Your task to perform on an android device: add a contact in the contacts app Image 0: 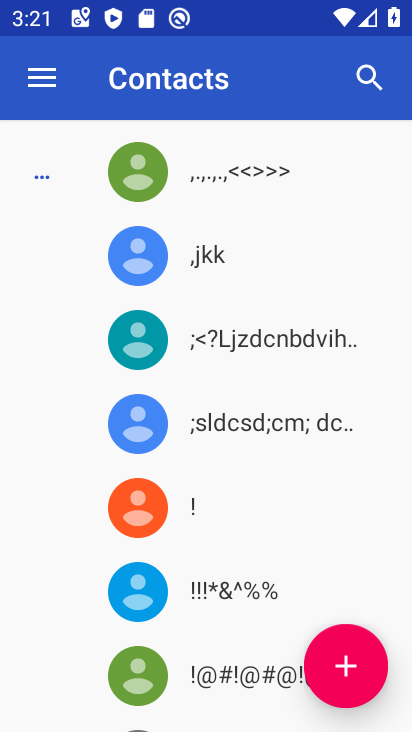
Step 0: press home button
Your task to perform on an android device: add a contact in the contacts app Image 1: 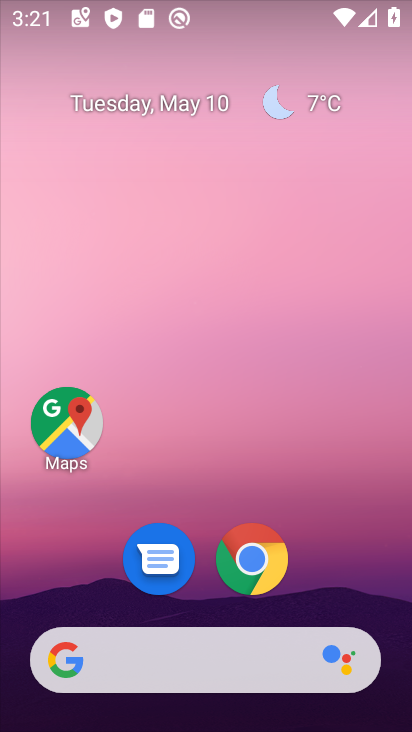
Step 1: drag from (322, 612) to (356, 250)
Your task to perform on an android device: add a contact in the contacts app Image 2: 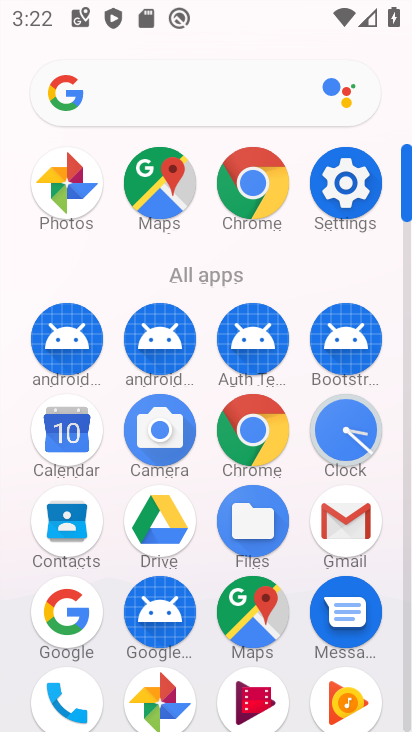
Step 2: drag from (312, 592) to (341, 267)
Your task to perform on an android device: add a contact in the contacts app Image 3: 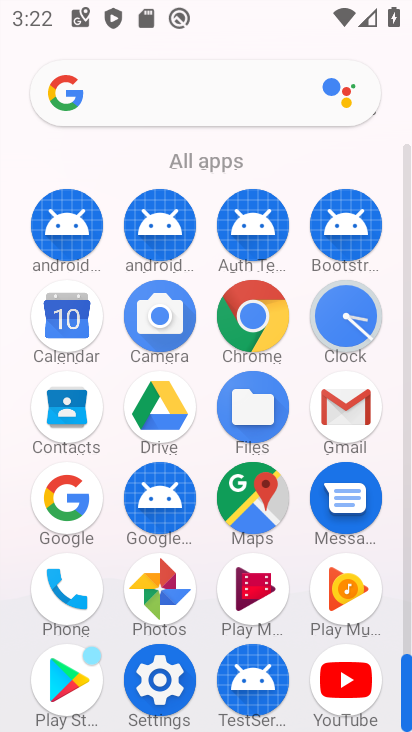
Step 3: drag from (307, 273) to (278, 596)
Your task to perform on an android device: add a contact in the contacts app Image 4: 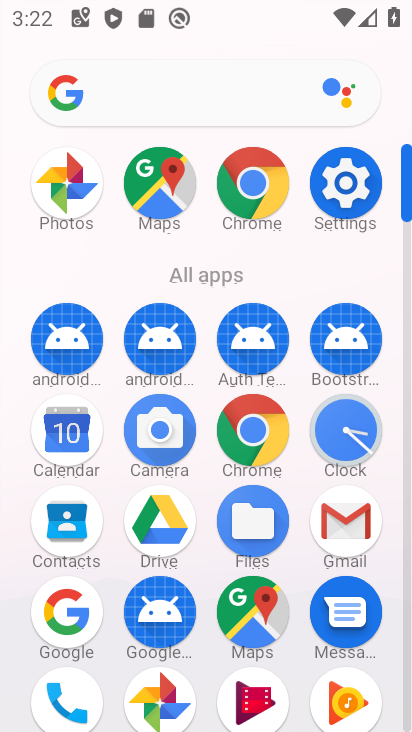
Step 4: click (86, 532)
Your task to perform on an android device: add a contact in the contacts app Image 5: 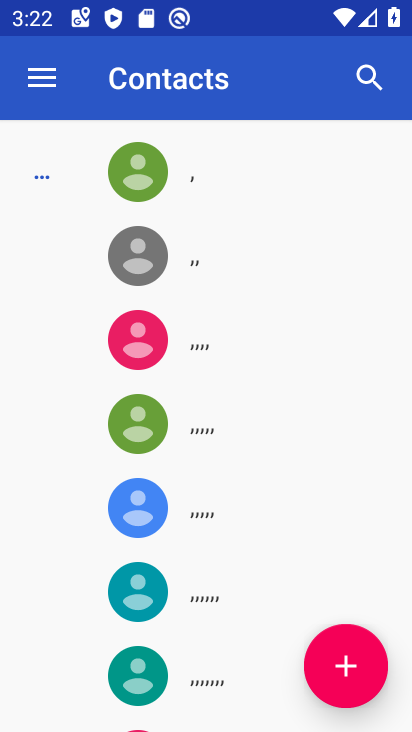
Step 5: click (349, 663)
Your task to perform on an android device: add a contact in the contacts app Image 6: 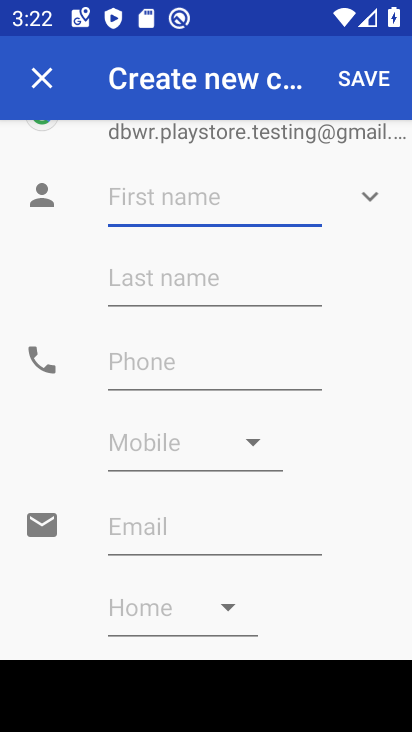
Step 6: type "contact 33"
Your task to perform on an android device: add a contact in the contacts app Image 7: 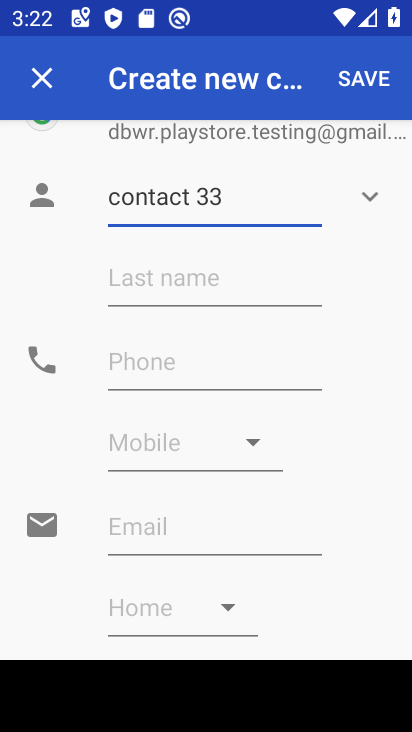
Step 7: click (230, 375)
Your task to perform on an android device: add a contact in the contacts app Image 8: 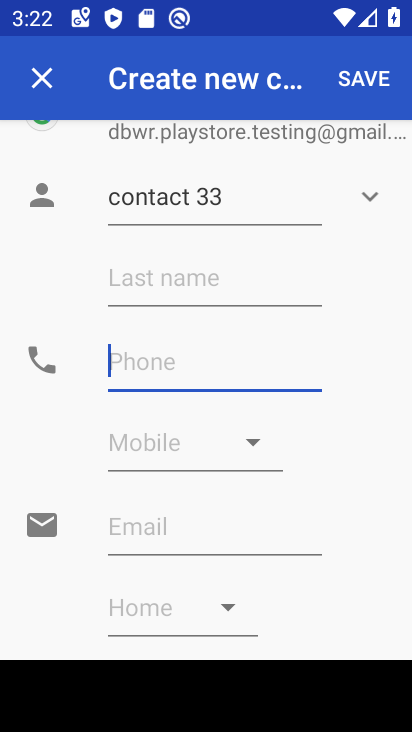
Step 8: type "6564766556"
Your task to perform on an android device: add a contact in the contacts app Image 9: 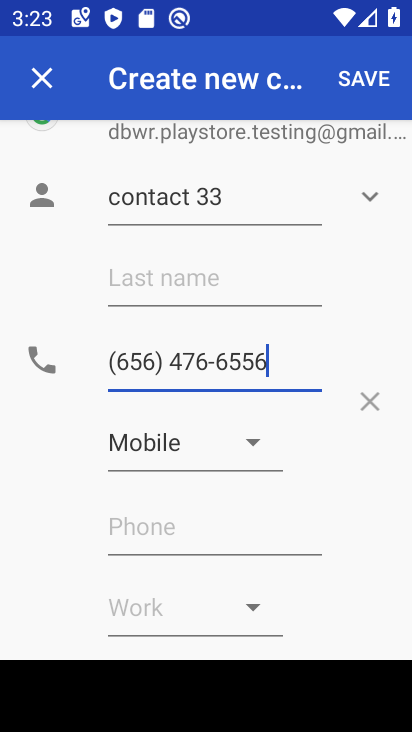
Step 9: click (366, 80)
Your task to perform on an android device: add a contact in the contacts app Image 10: 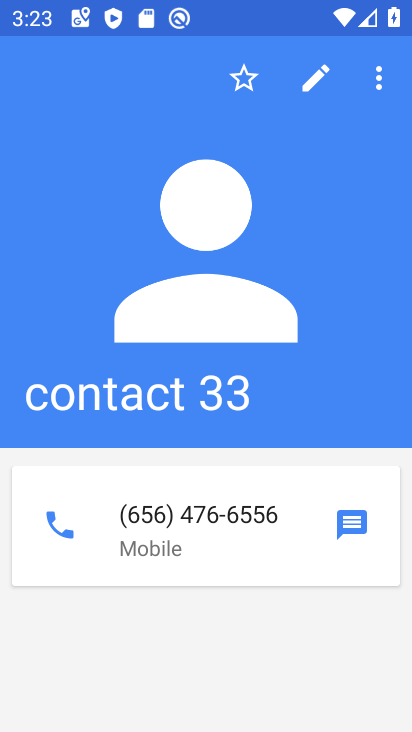
Step 10: task complete